Your task to perform on an android device: stop showing notifications on the lock screen Image 0: 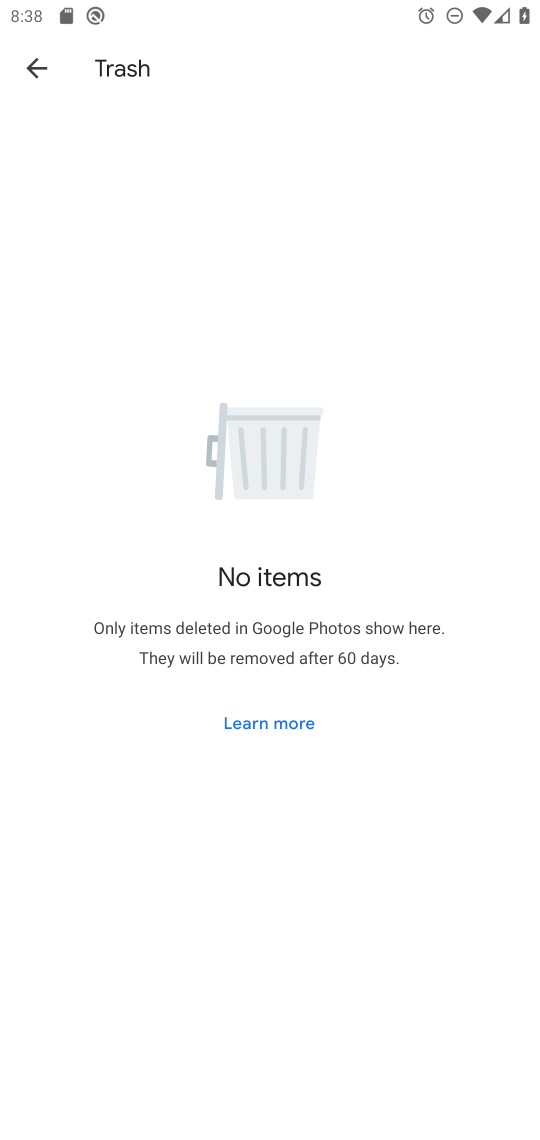
Step 0: press home button
Your task to perform on an android device: stop showing notifications on the lock screen Image 1: 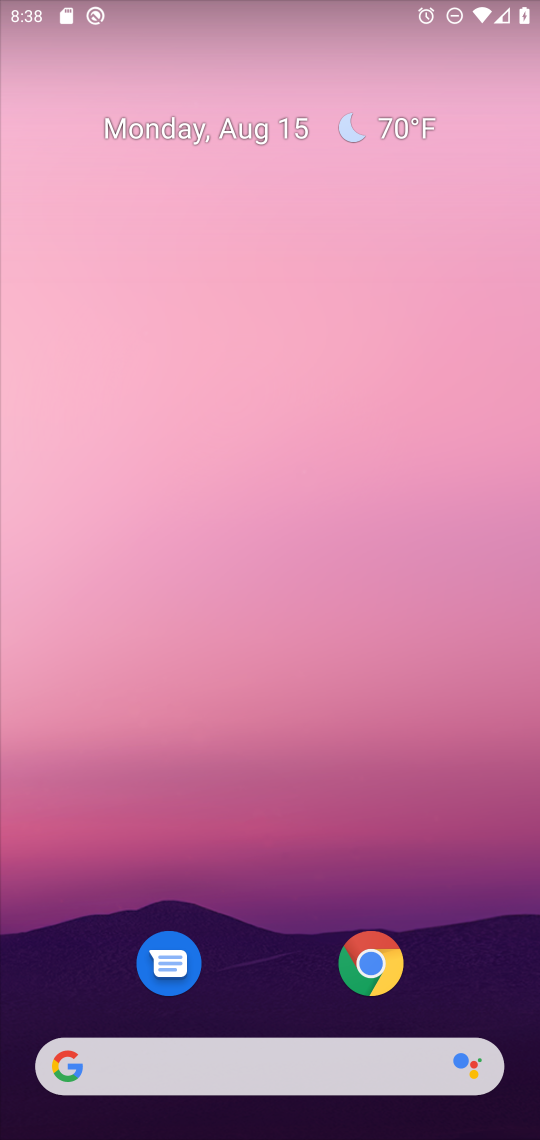
Step 1: drag from (271, 964) to (332, 468)
Your task to perform on an android device: stop showing notifications on the lock screen Image 2: 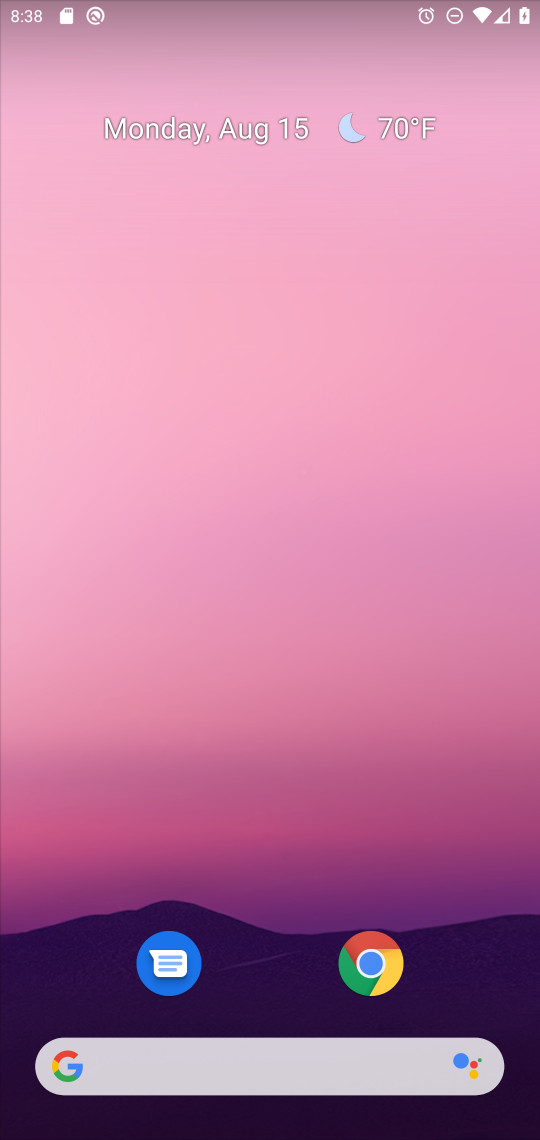
Step 2: drag from (294, 982) to (5, 237)
Your task to perform on an android device: stop showing notifications on the lock screen Image 3: 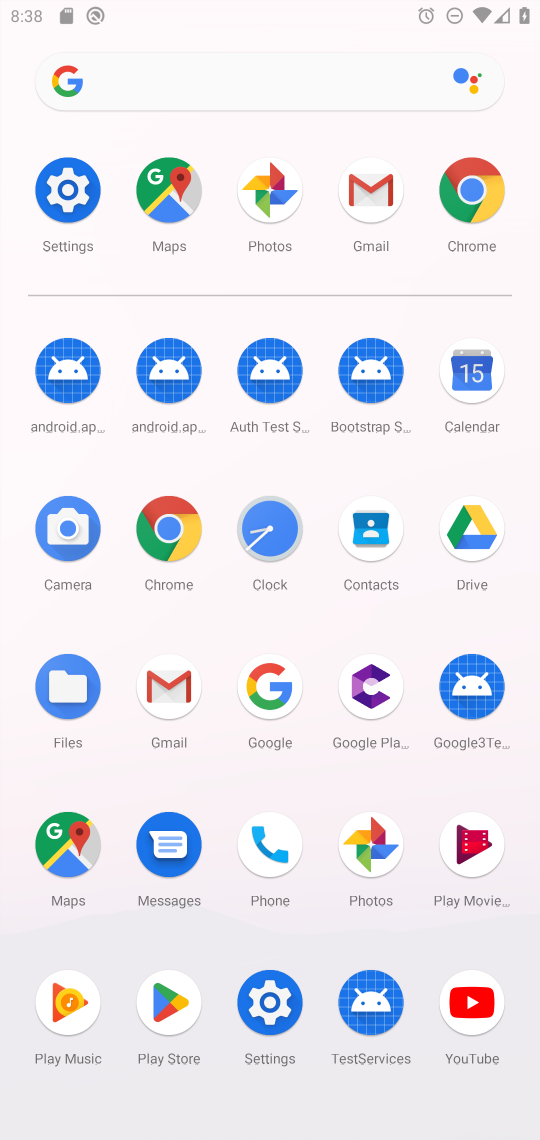
Step 3: click (45, 253)
Your task to perform on an android device: stop showing notifications on the lock screen Image 4: 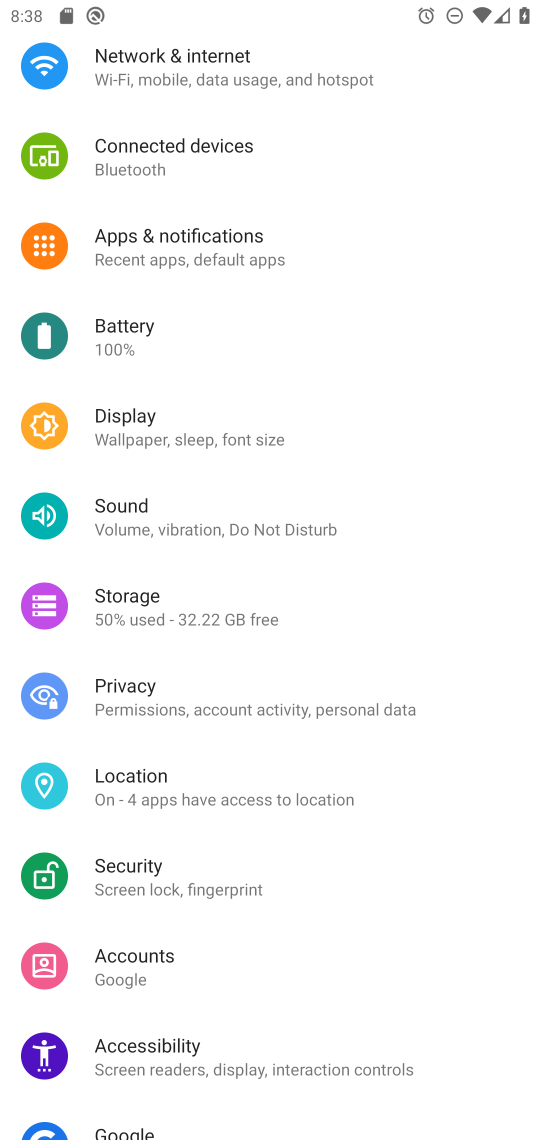
Step 4: click (97, 243)
Your task to perform on an android device: stop showing notifications on the lock screen Image 5: 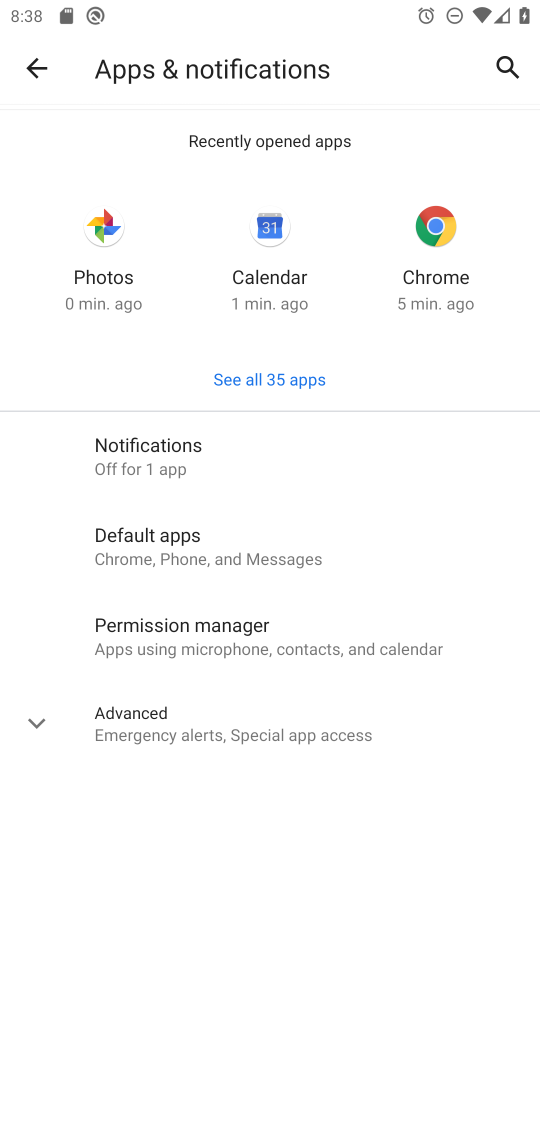
Step 5: click (129, 470)
Your task to perform on an android device: stop showing notifications on the lock screen Image 6: 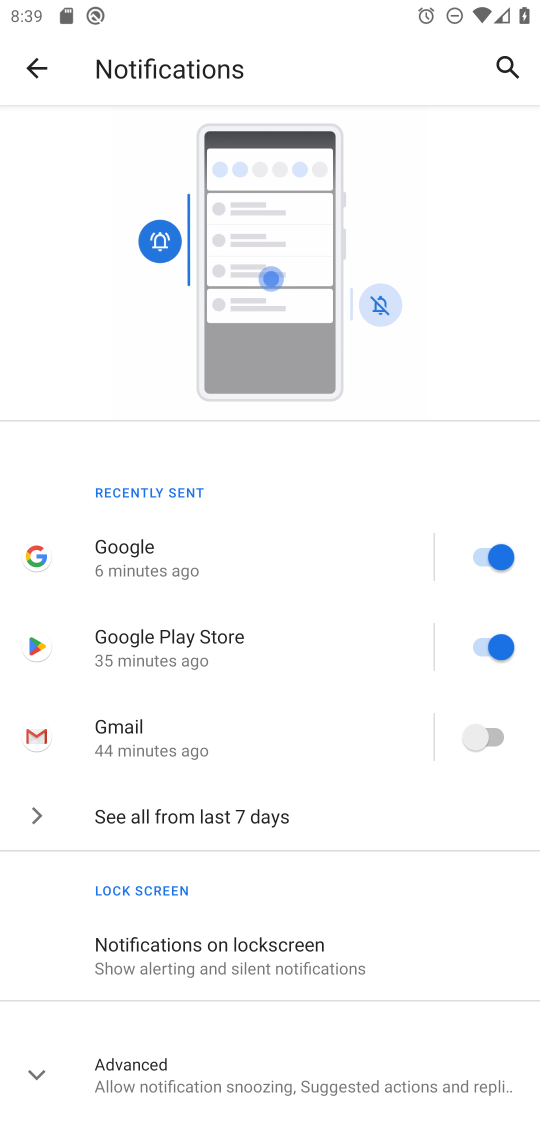
Step 6: click (266, 955)
Your task to perform on an android device: stop showing notifications on the lock screen Image 7: 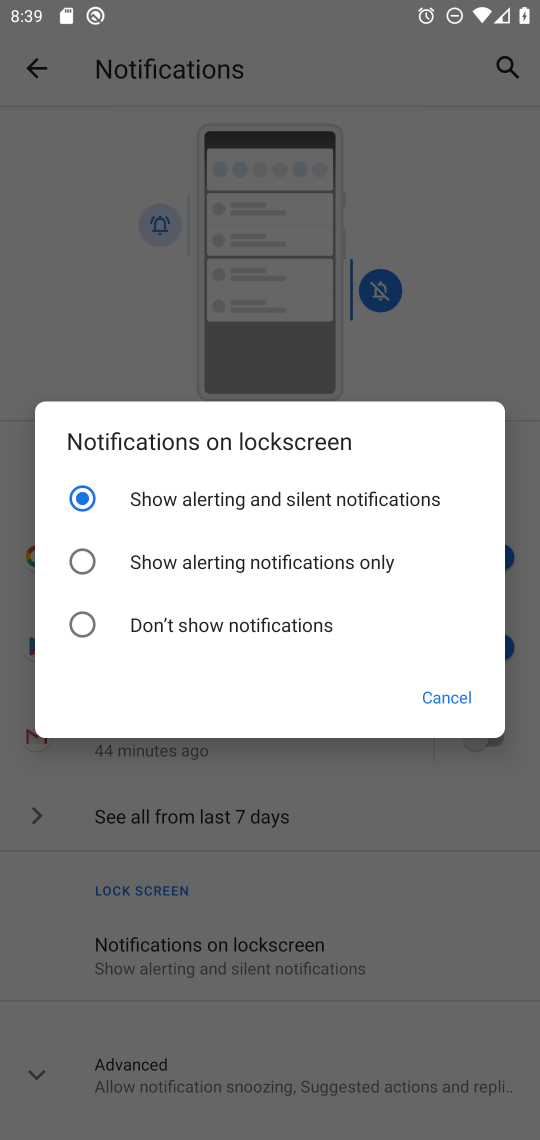
Step 7: click (178, 618)
Your task to perform on an android device: stop showing notifications on the lock screen Image 8: 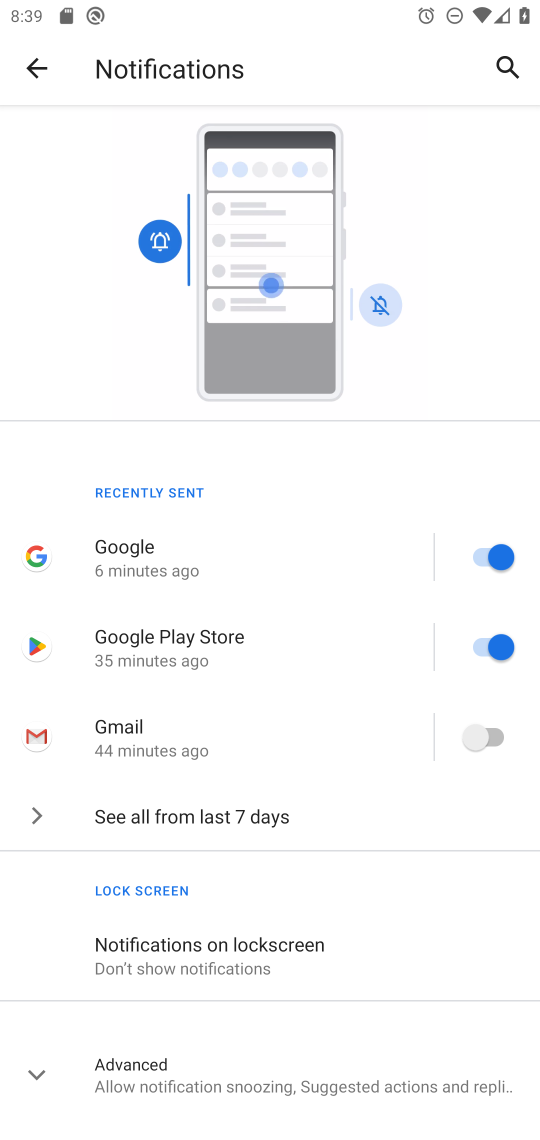
Step 8: task complete